Your task to perform on an android device: Open Android settings Image 0: 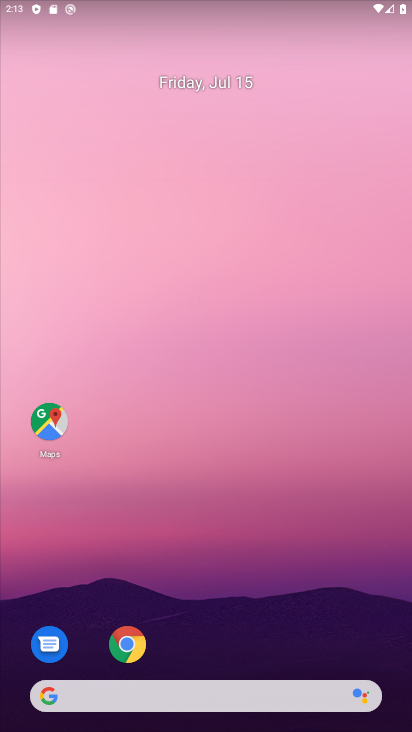
Step 0: drag from (266, 658) to (53, 44)
Your task to perform on an android device: Open Android settings Image 1: 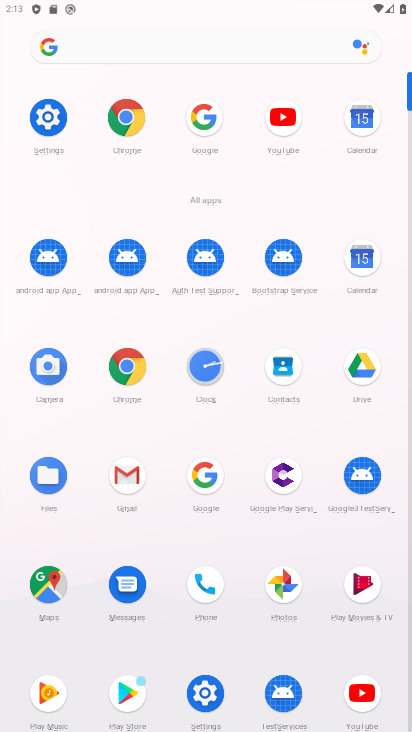
Step 1: click (44, 130)
Your task to perform on an android device: Open Android settings Image 2: 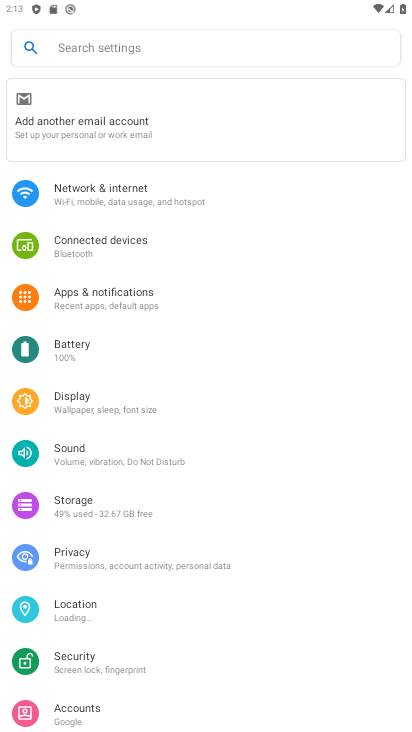
Step 2: drag from (152, 702) to (267, 113)
Your task to perform on an android device: Open Android settings Image 3: 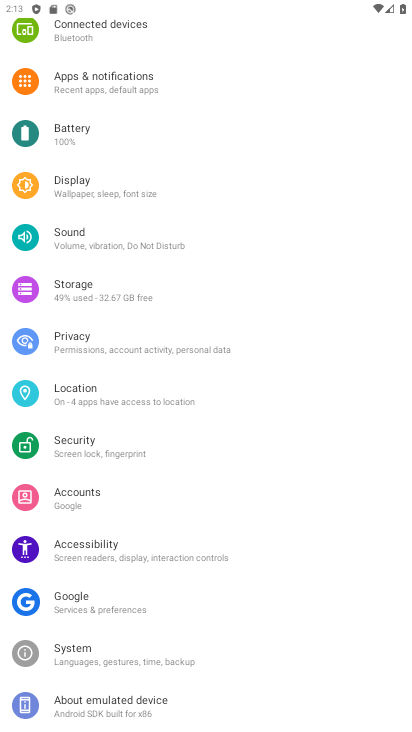
Step 3: click (109, 708)
Your task to perform on an android device: Open Android settings Image 4: 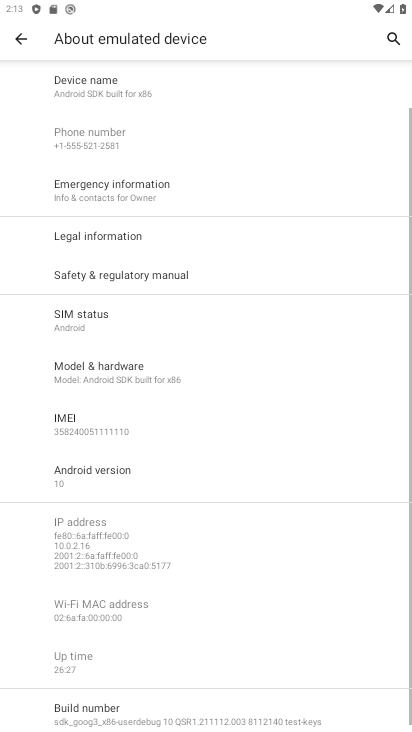
Step 4: click (125, 484)
Your task to perform on an android device: Open Android settings Image 5: 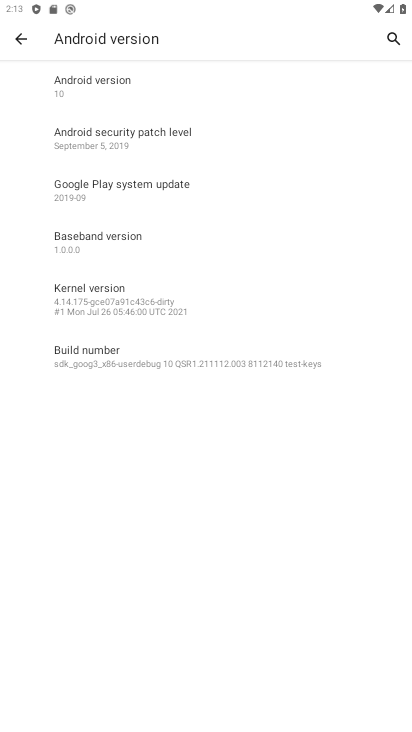
Step 5: task complete